Your task to perform on an android device: open device folders in google photos Image 0: 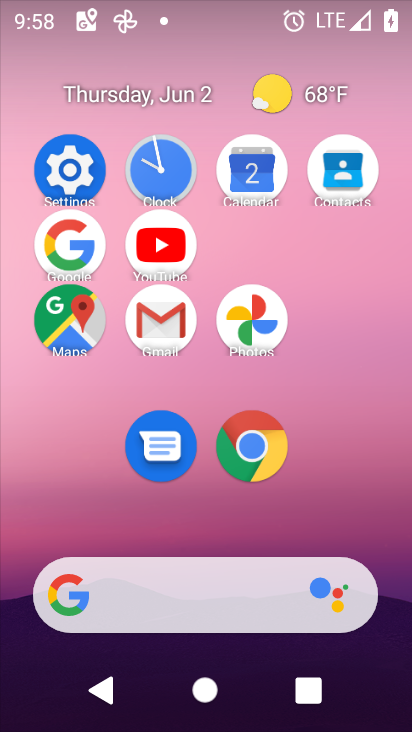
Step 0: click (261, 309)
Your task to perform on an android device: open device folders in google photos Image 1: 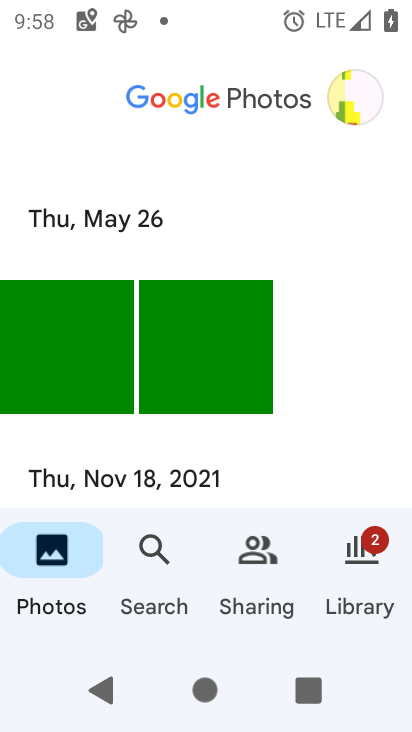
Step 1: click (368, 64)
Your task to perform on an android device: open device folders in google photos Image 2: 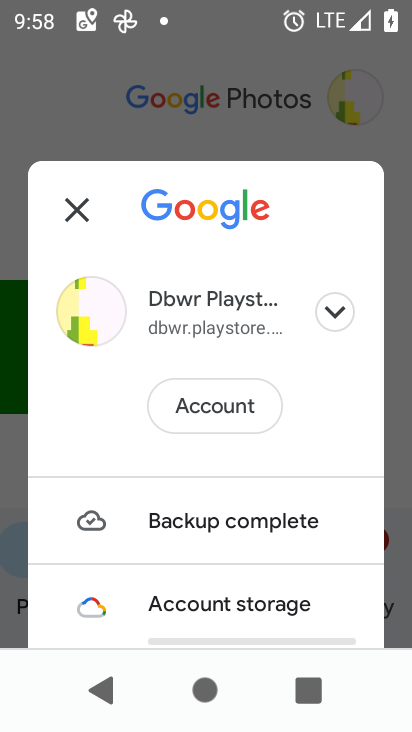
Step 2: task complete